Your task to perform on an android device: turn on javascript in the chrome app Image 0: 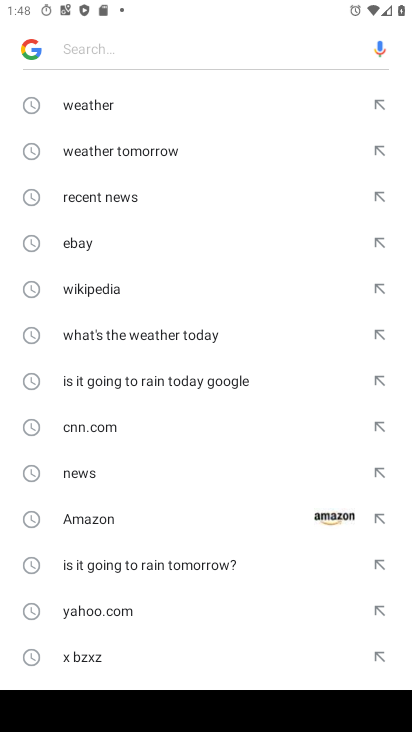
Step 0: press home button
Your task to perform on an android device: turn on javascript in the chrome app Image 1: 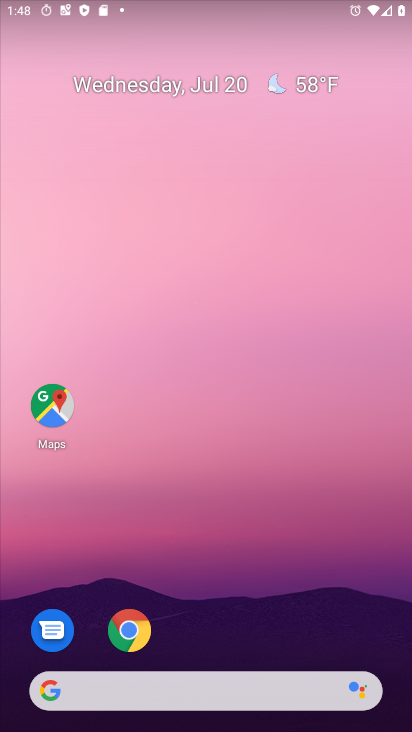
Step 1: click (130, 625)
Your task to perform on an android device: turn on javascript in the chrome app Image 2: 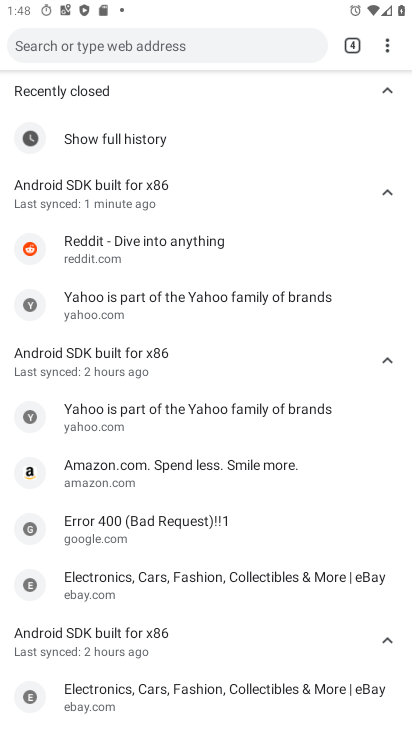
Step 2: drag from (385, 43) to (239, 379)
Your task to perform on an android device: turn on javascript in the chrome app Image 3: 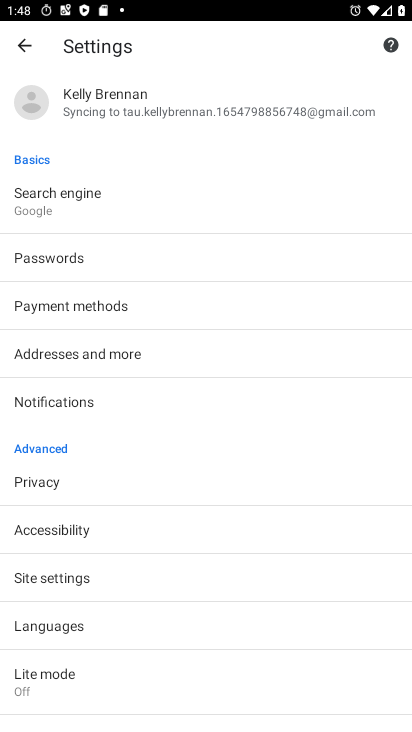
Step 3: click (82, 573)
Your task to perform on an android device: turn on javascript in the chrome app Image 4: 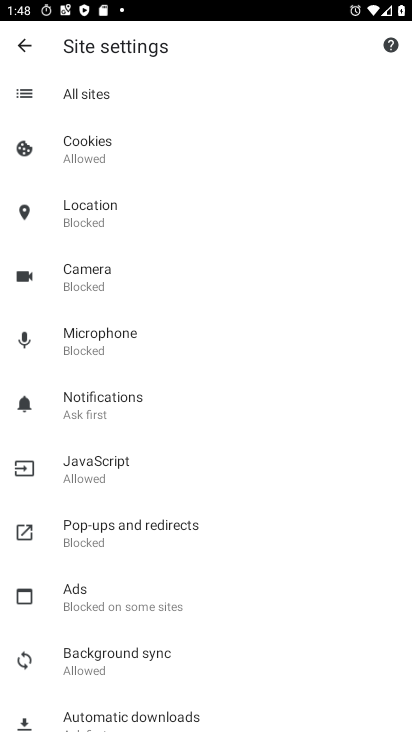
Step 4: click (108, 464)
Your task to perform on an android device: turn on javascript in the chrome app Image 5: 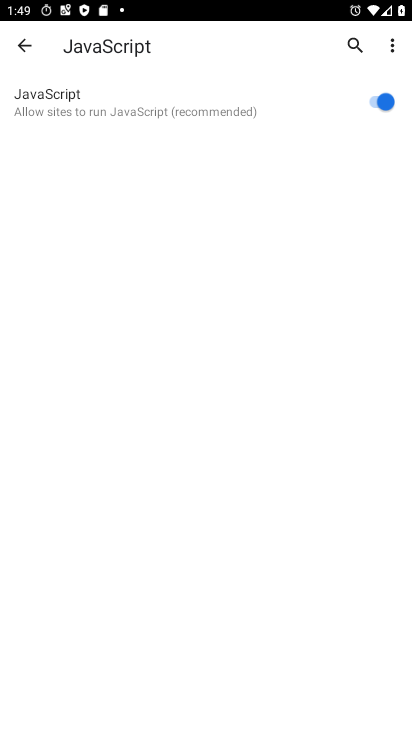
Step 5: task complete